Your task to perform on an android device: turn off notifications settings in the gmail app Image 0: 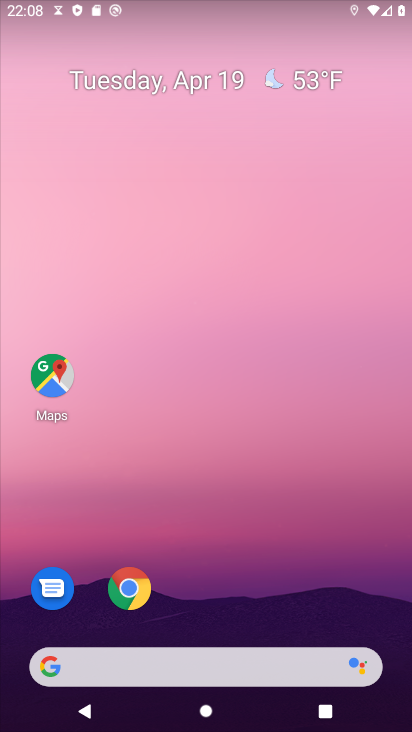
Step 0: drag from (192, 606) to (273, 32)
Your task to perform on an android device: turn off notifications settings in the gmail app Image 1: 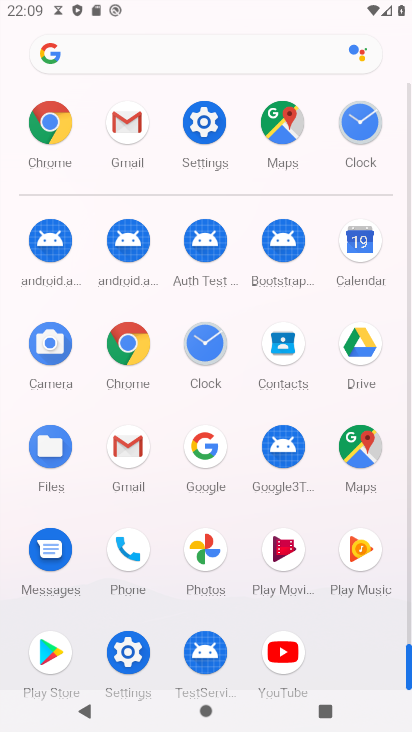
Step 1: click (135, 126)
Your task to perform on an android device: turn off notifications settings in the gmail app Image 2: 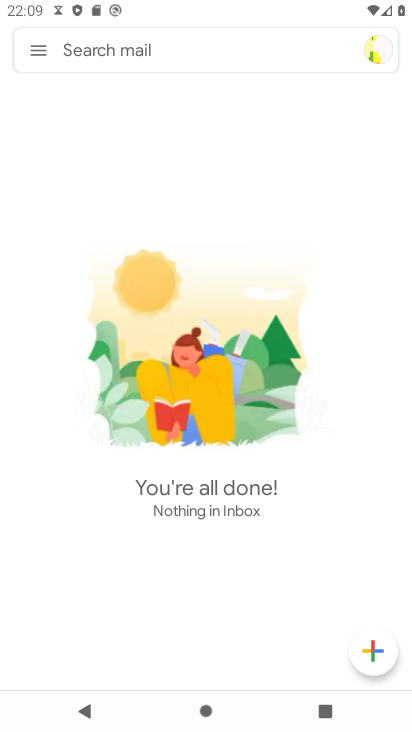
Step 2: click (42, 50)
Your task to perform on an android device: turn off notifications settings in the gmail app Image 3: 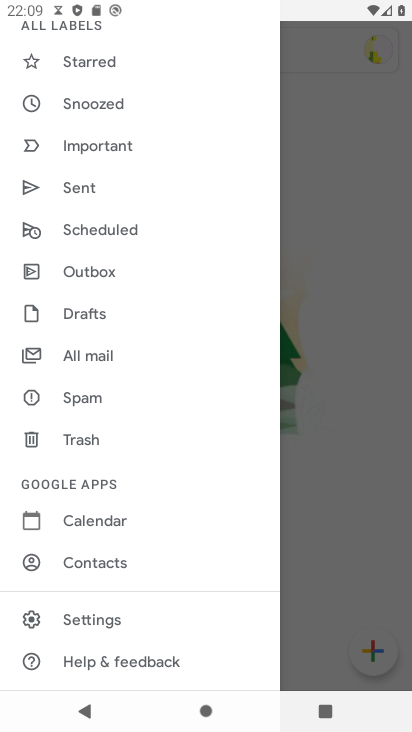
Step 3: click (99, 619)
Your task to perform on an android device: turn off notifications settings in the gmail app Image 4: 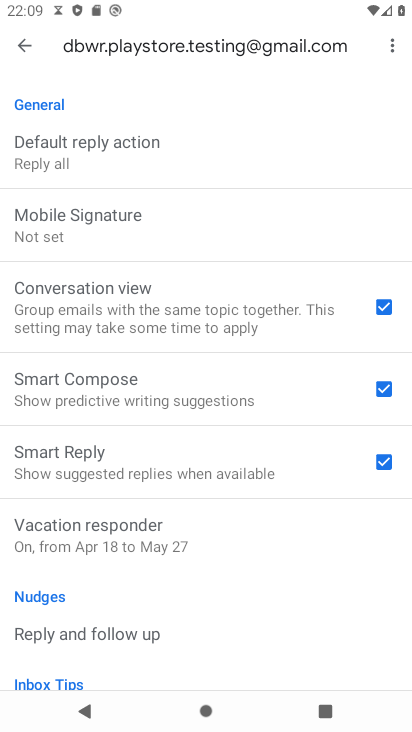
Step 4: drag from (214, 161) to (209, 272)
Your task to perform on an android device: turn off notifications settings in the gmail app Image 5: 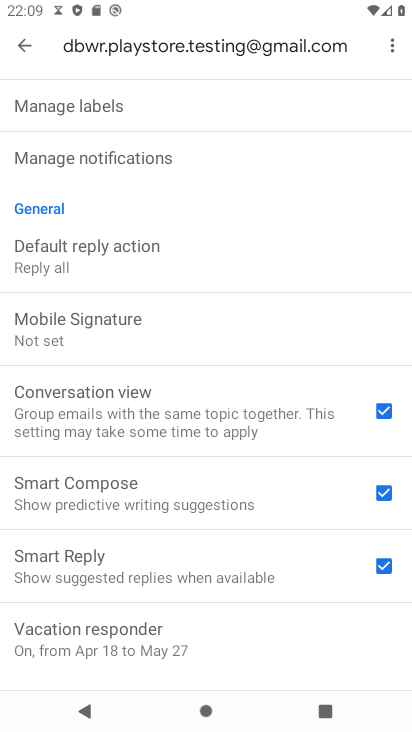
Step 5: click (159, 159)
Your task to perform on an android device: turn off notifications settings in the gmail app Image 6: 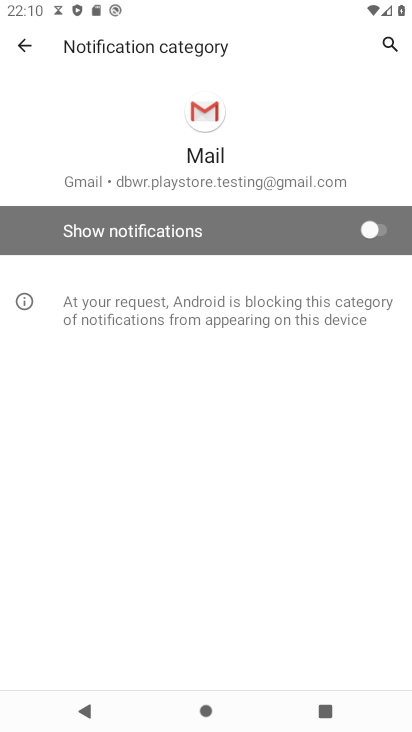
Step 6: task complete